Your task to perform on an android device: uninstall "Messages" Image 0: 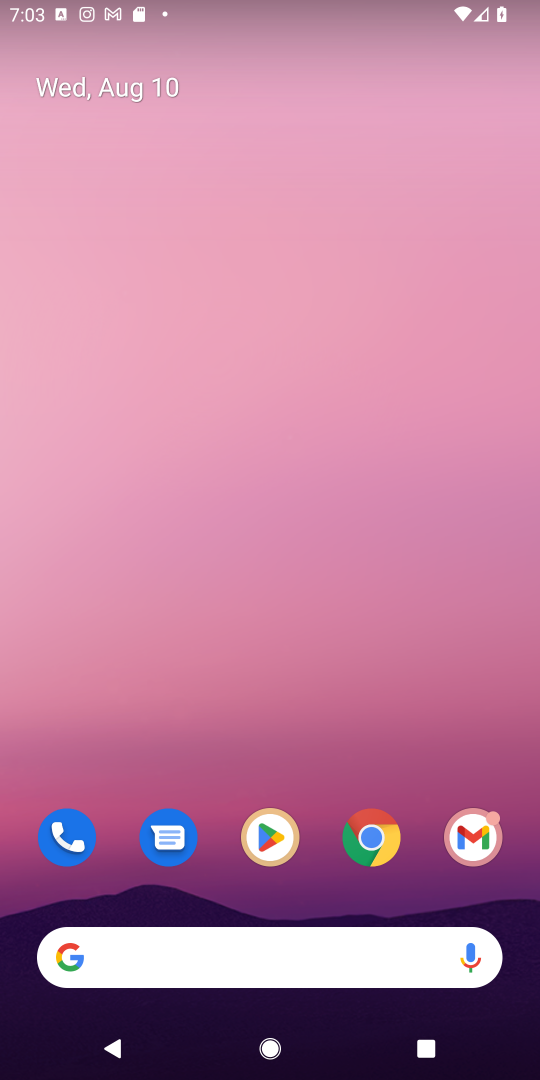
Step 0: press home button
Your task to perform on an android device: uninstall "Messages" Image 1: 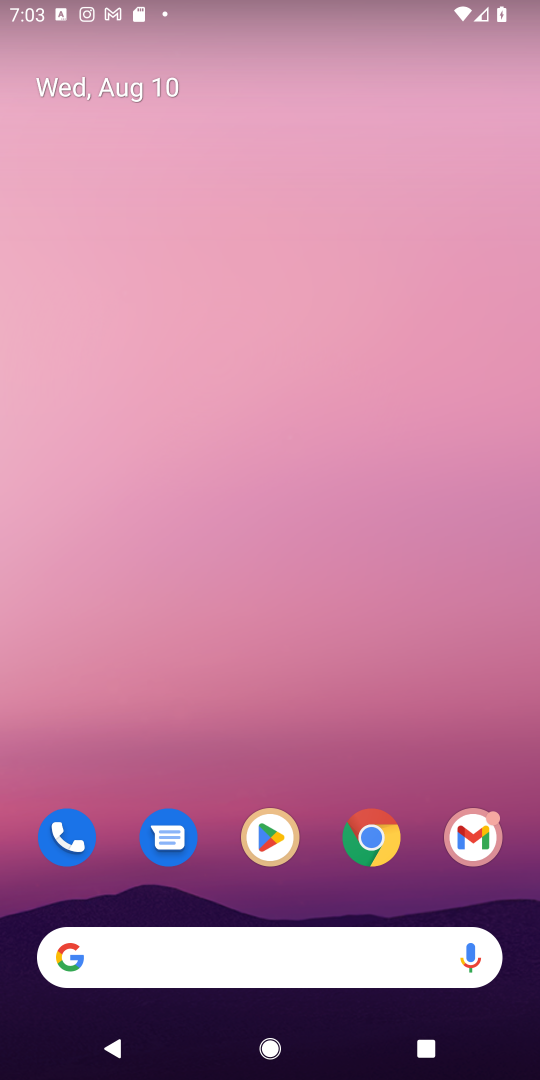
Step 1: click (278, 834)
Your task to perform on an android device: uninstall "Messages" Image 2: 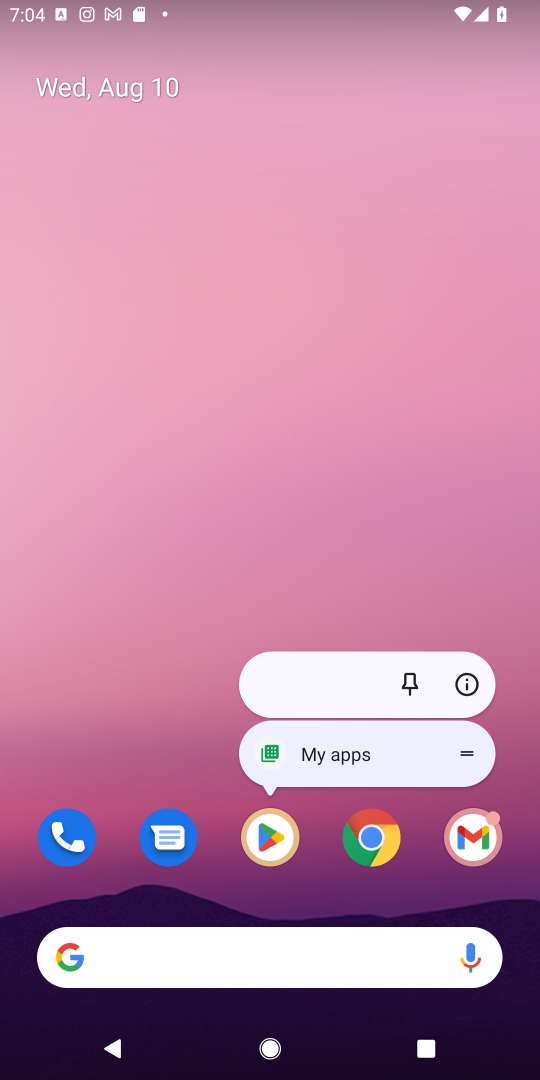
Step 2: click (278, 836)
Your task to perform on an android device: uninstall "Messages" Image 3: 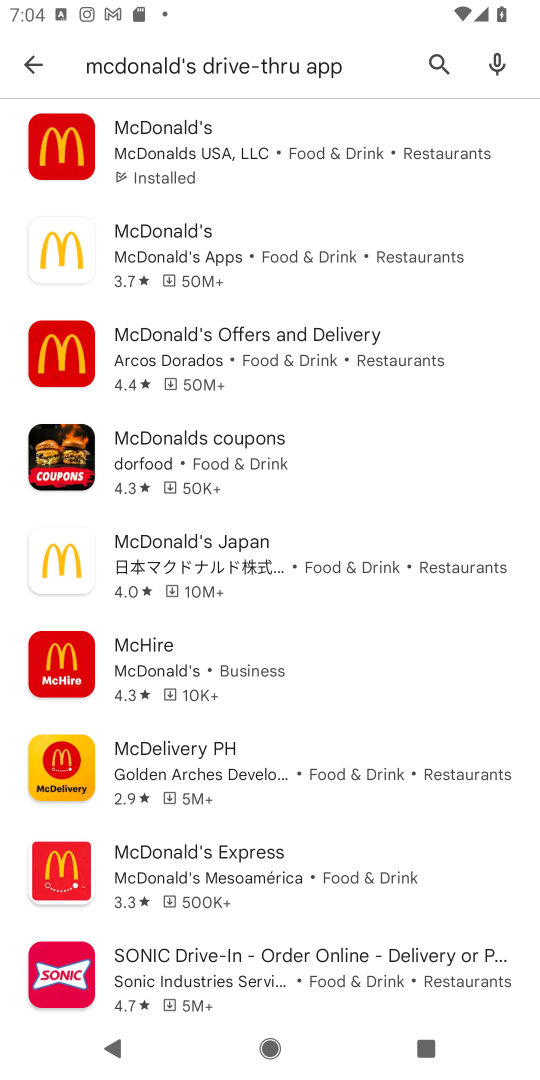
Step 3: click (436, 57)
Your task to perform on an android device: uninstall "Messages" Image 4: 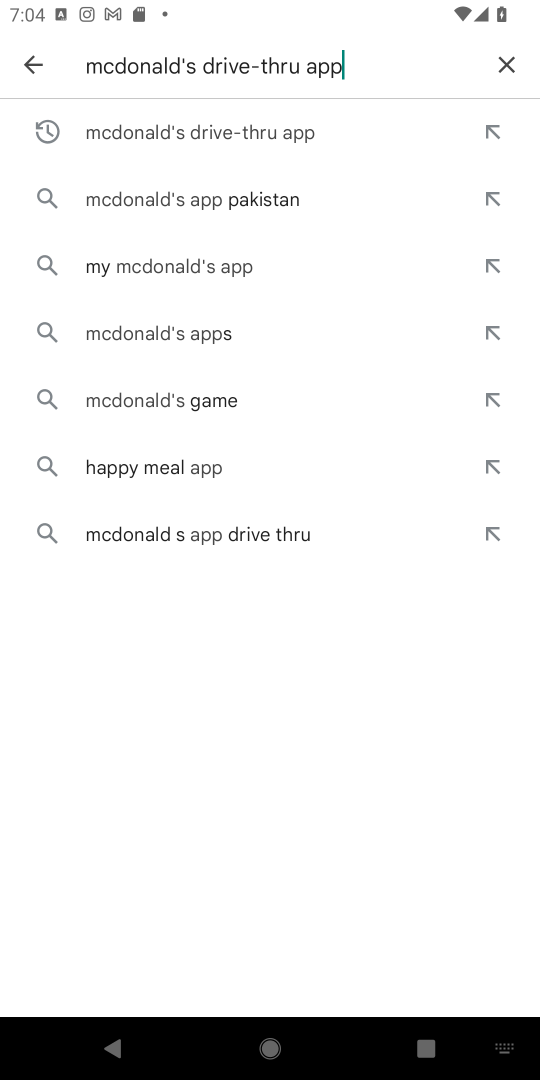
Step 4: click (509, 58)
Your task to perform on an android device: uninstall "Messages" Image 5: 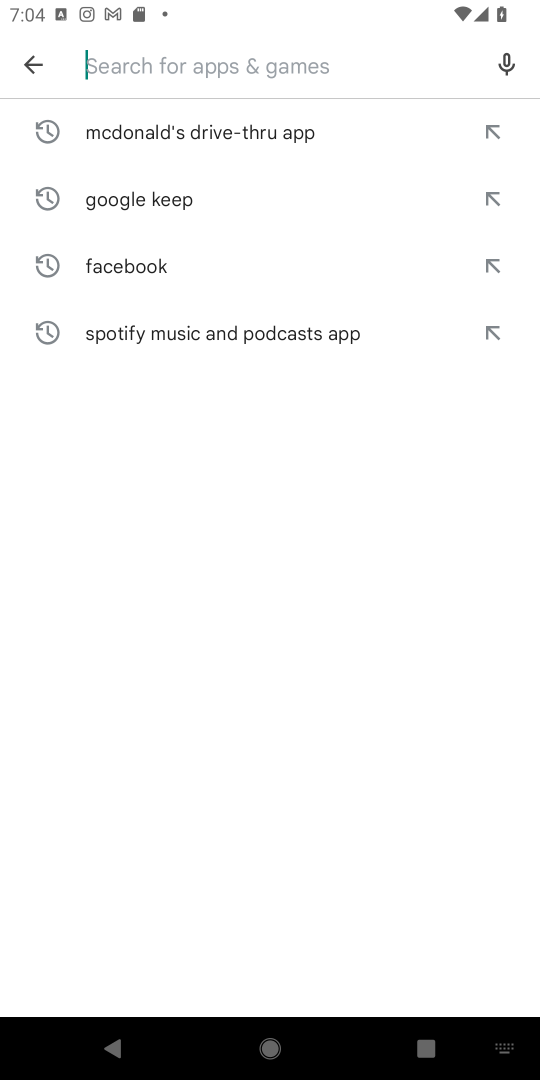
Step 5: type "Messages"
Your task to perform on an android device: uninstall "Messages" Image 6: 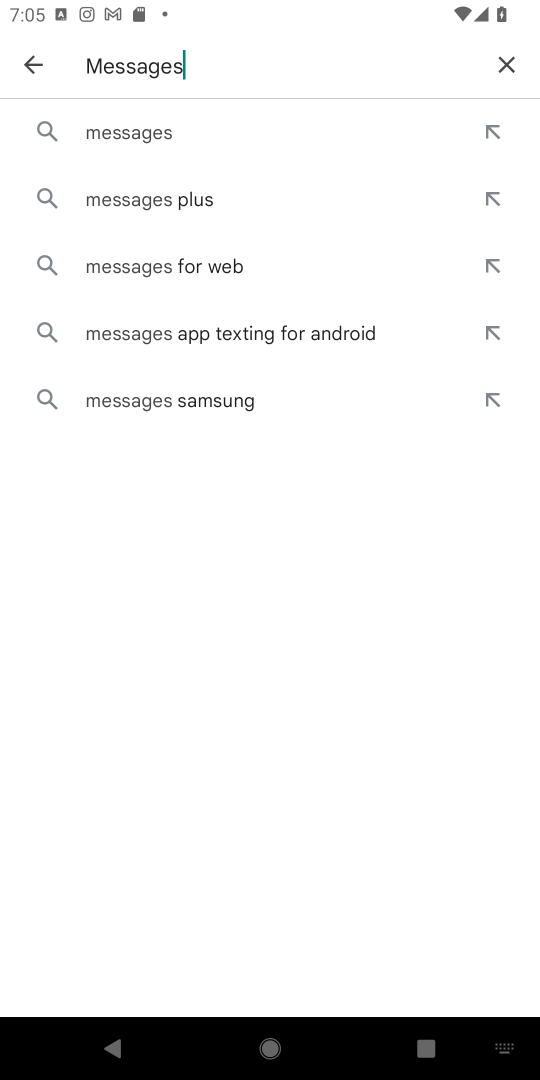
Step 6: click (181, 141)
Your task to perform on an android device: uninstall "Messages" Image 7: 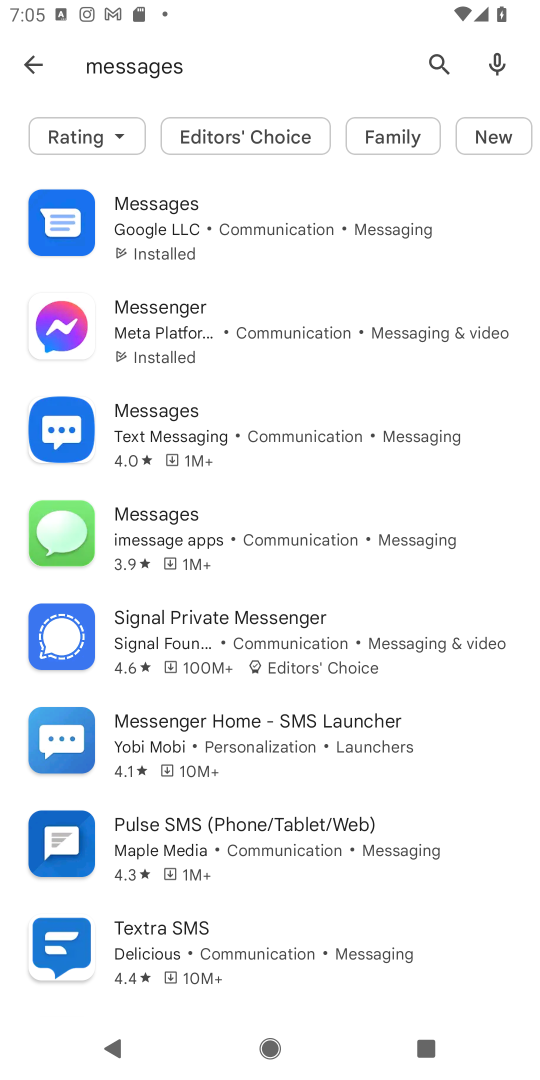
Step 7: click (240, 217)
Your task to perform on an android device: uninstall "Messages" Image 8: 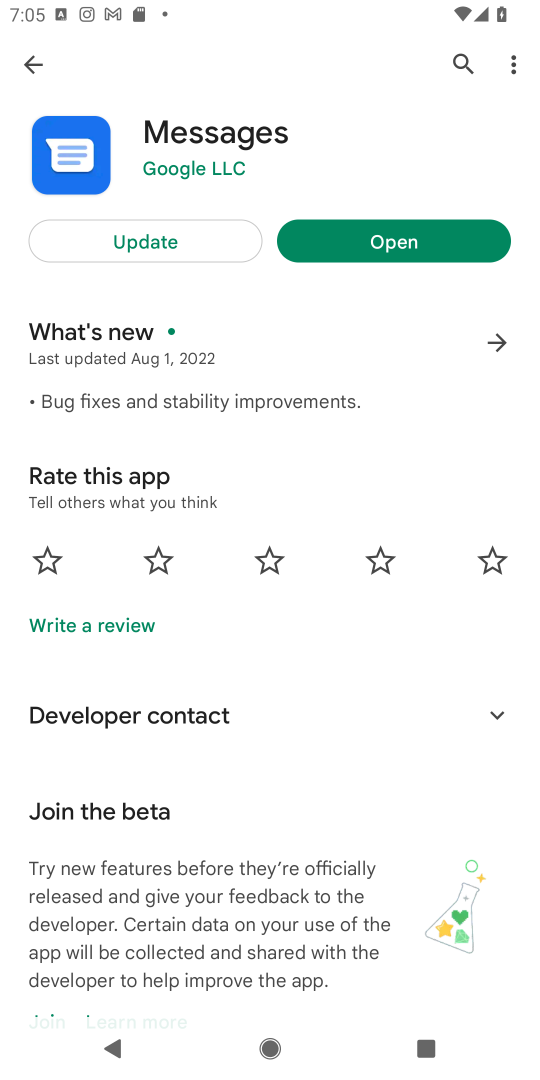
Step 8: task complete